Your task to perform on an android device: toggle priority inbox in the gmail app Image 0: 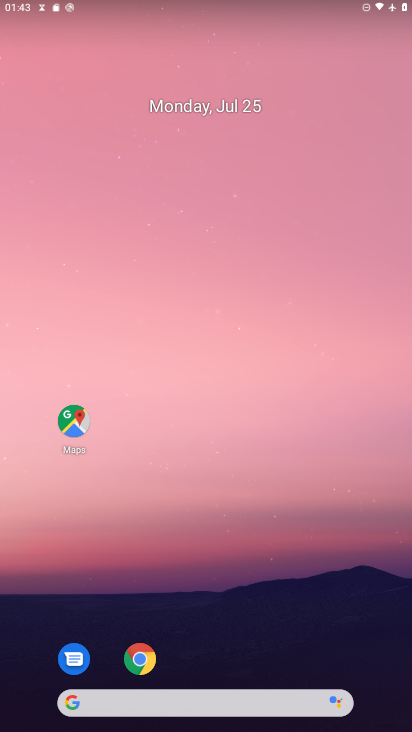
Step 0: drag from (112, 640) to (165, 216)
Your task to perform on an android device: toggle priority inbox in the gmail app Image 1: 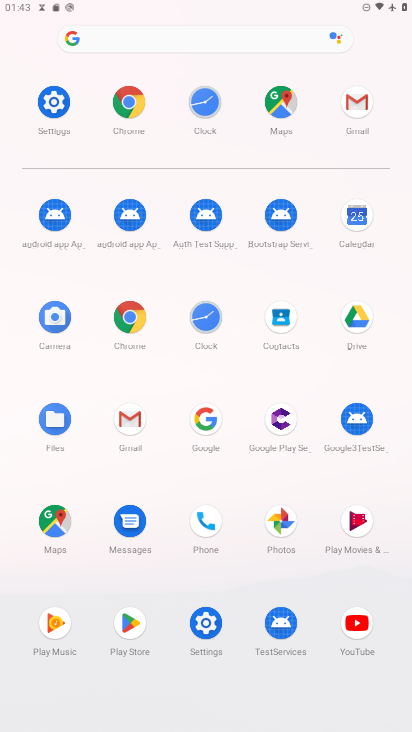
Step 1: click (354, 97)
Your task to perform on an android device: toggle priority inbox in the gmail app Image 2: 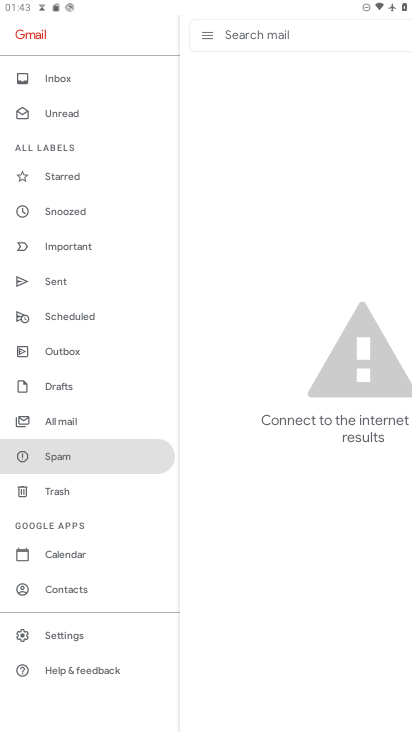
Step 2: click (62, 620)
Your task to perform on an android device: toggle priority inbox in the gmail app Image 3: 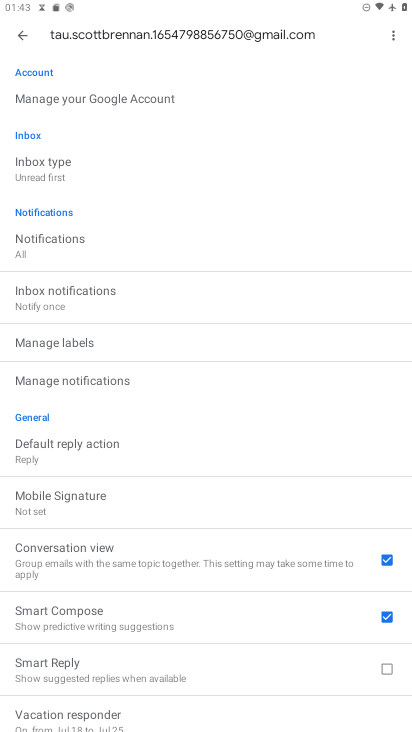
Step 3: click (62, 161)
Your task to perform on an android device: toggle priority inbox in the gmail app Image 4: 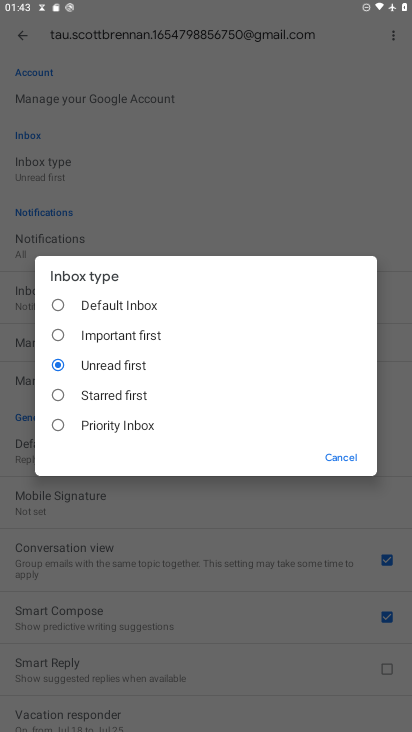
Step 4: click (118, 422)
Your task to perform on an android device: toggle priority inbox in the gmail app Image 5: 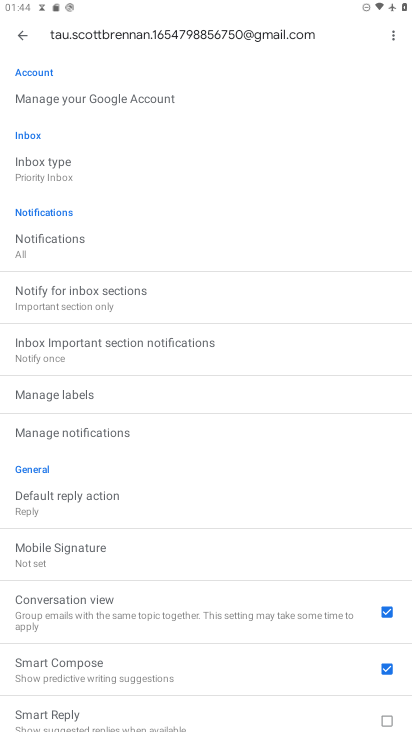
Step 5: task complete